Your task to perform on an android device: empty trash in the gmail app Image 0: 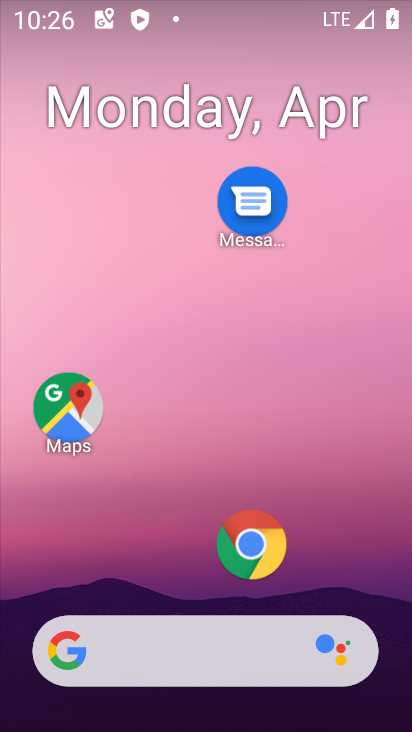
Step 0: press home button
Your task to perform on an android device: empty trash in the gmail app Image 1: 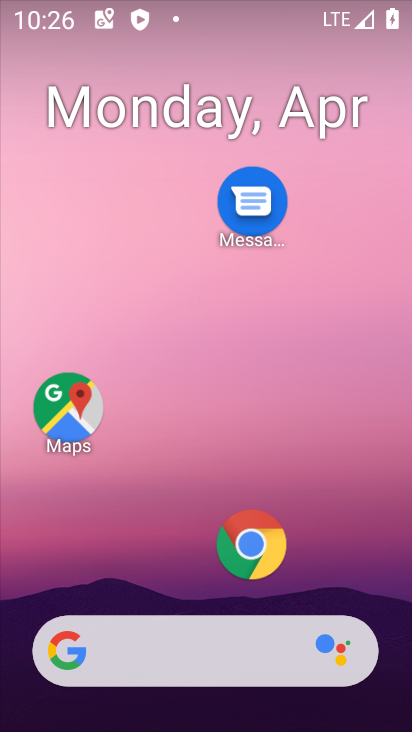
Step 1: drag from (220, 267) to (249, 21)
Your task to perform on an android device: empty trash in the gmail app Image 2: 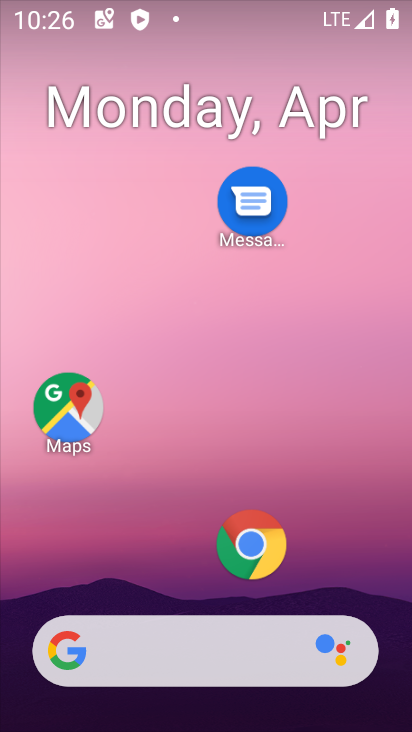
Step 2: drag from (193, 599) to (261, 120)
Your task to perform on an android device: empty trash in the gmail app Image 3: 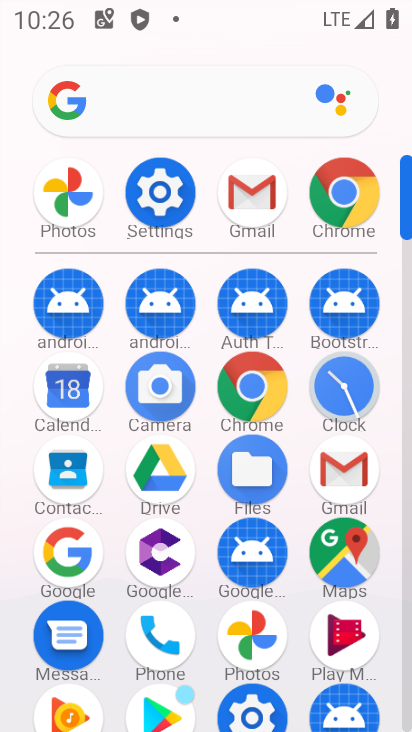
Step 3: click (340, 464)
Your task to perform on an android device: empty trash in the gmail app Image 4: 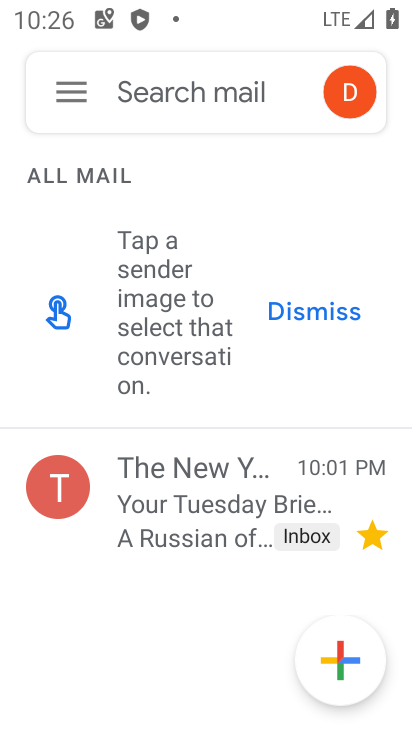
Step 4: click (57, 85)
Your task to perform on an android device: empty trash in the gmail app Image 5: 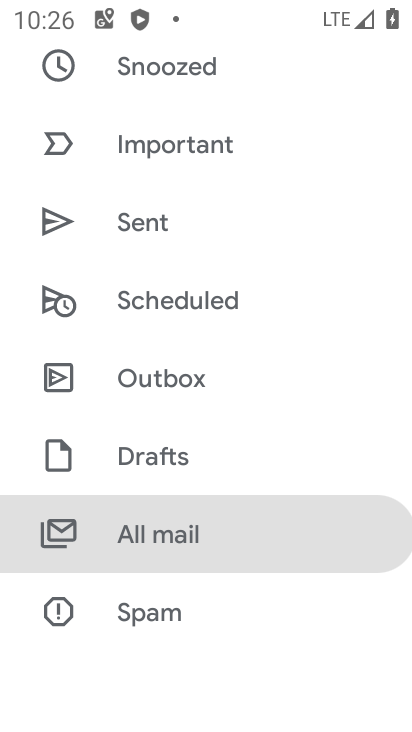
Step 5: drag from (172, 574) to (181, 141)
Your task to perform on an android device: empty trash in the gmail app Image 6: 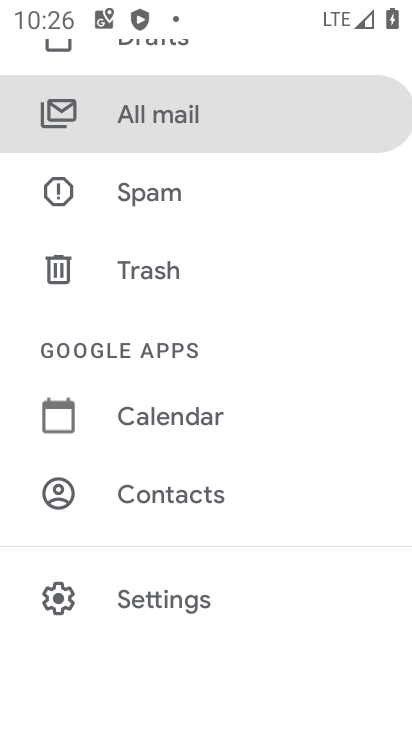
Step 6: click (142, 263)
Your task to perform on an android device: empty trash in the gmail app Image 7: 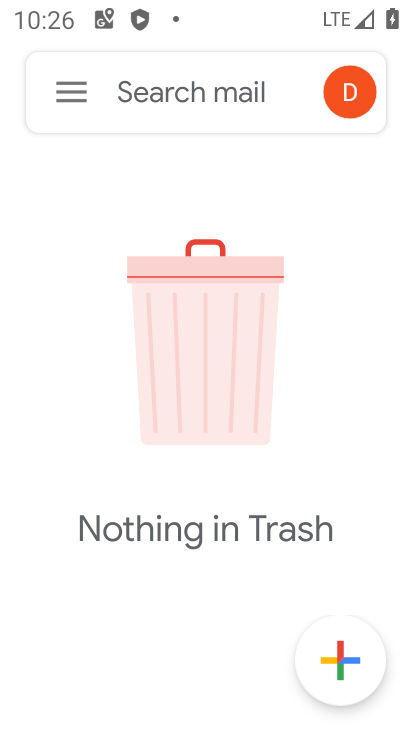
Step 7: task complete